Your task to perform on an android device: toggle airplane mode Image 0: 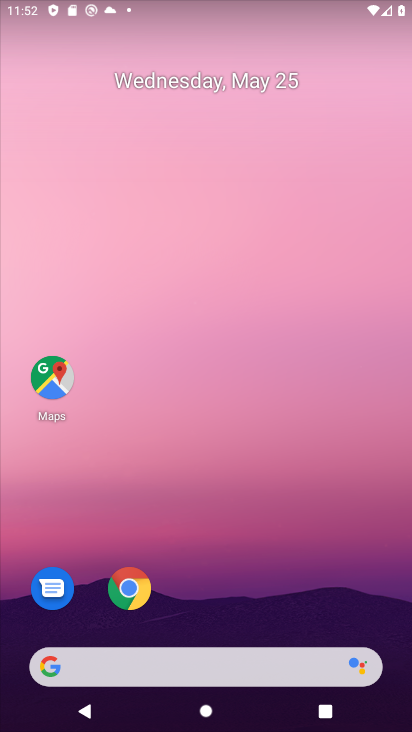
Step 0: drag from (231, 449) to (310, 173)
Your task to perform on an android device: toggle airplane mode Image 1: 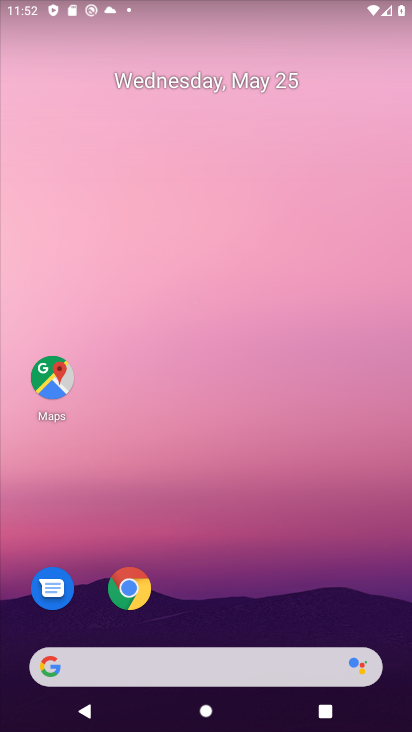
Step 1: drag from (232, 585) to (263, 243)
Your task to perform on an android device: toggle airplane mode Image 2: 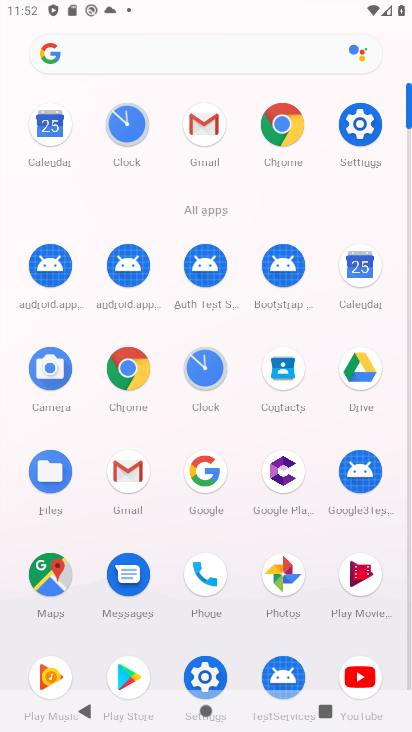
Step 2: click (202, 675)
Your task to perform on an android device: toggle airplane mode Image 3: 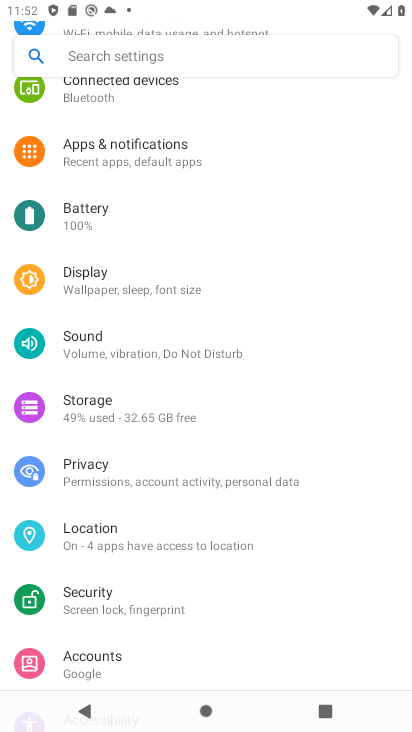
Step 3: drag from (146, 118) to (59, 629)
Your task to perform on an android device: toggle airplane mode Image 4: 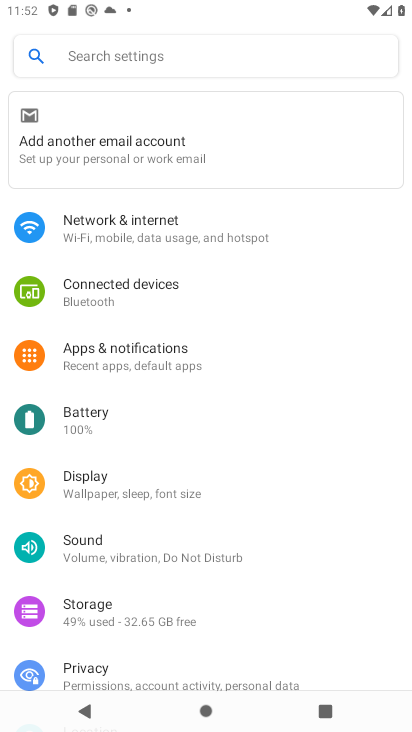
Step 4: click (161, 230)
Your task to perform on an android device: toggle airplane mode Image 5: 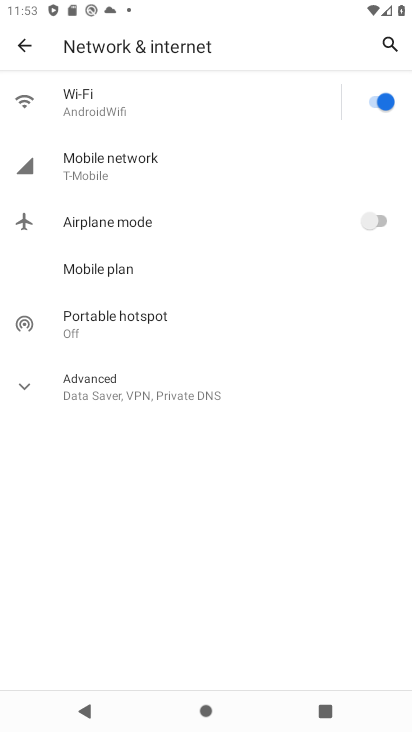
Step 5: click (377, 221)
Your task to perform on an android device: toggle airplane mode Image 6: 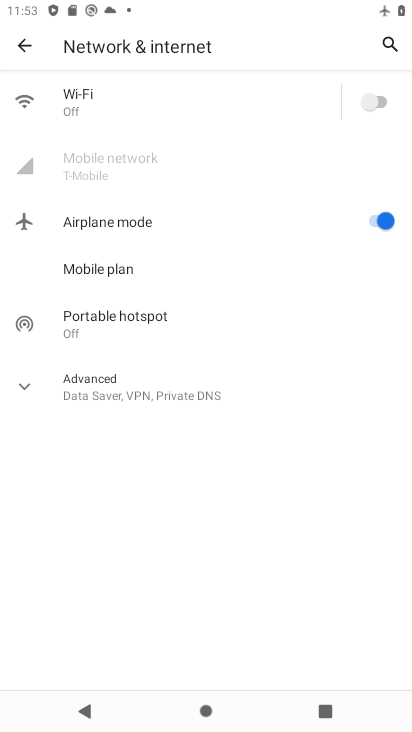
Step 6: task complete